Your task to perform on an android device: star an email in the gmail app Image 0: 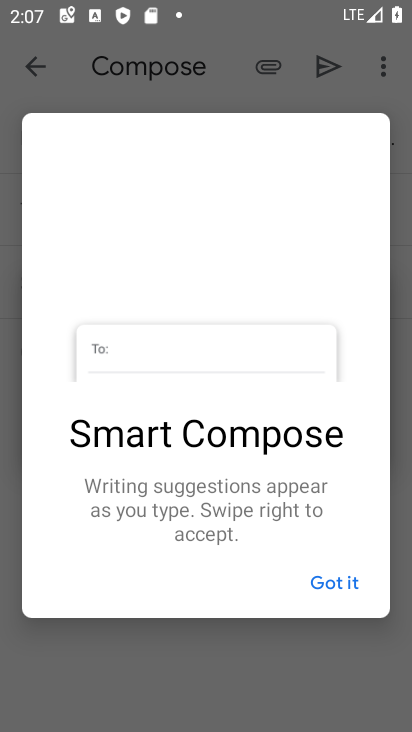
Step 0: press home button
Your task to perform on an android device: star an email in the gmail app Image 1: 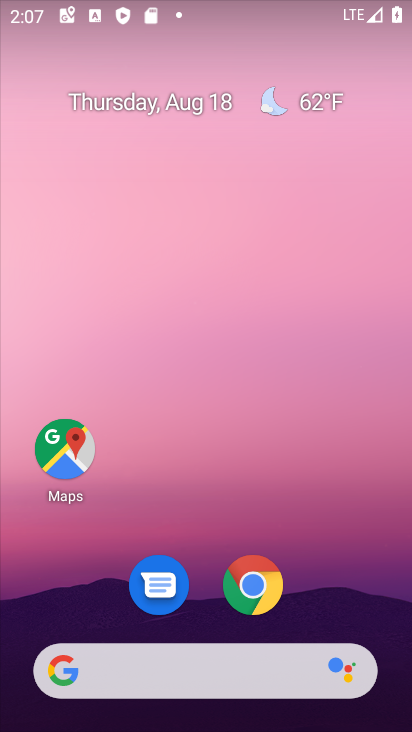
Step 1: drag from (300, 530) to (349, 12)
Your task to perform on an android device: star an email in the gmail app Image 2: 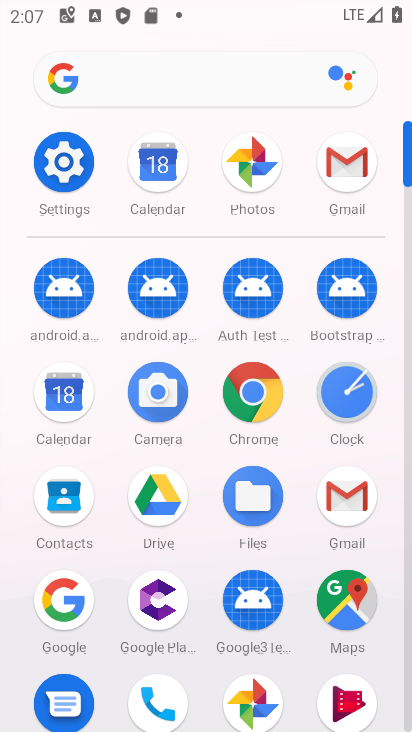
Step 2: click (347, 163)
Your task to perform on an android device: star an email in the gmail app Image 3: 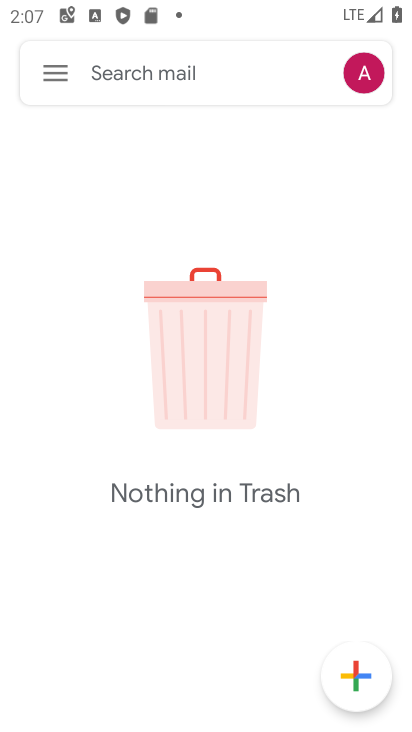
Step 3: click (57, 76)
Your task to perform on an android device: star an email in the gmail app Image 4: 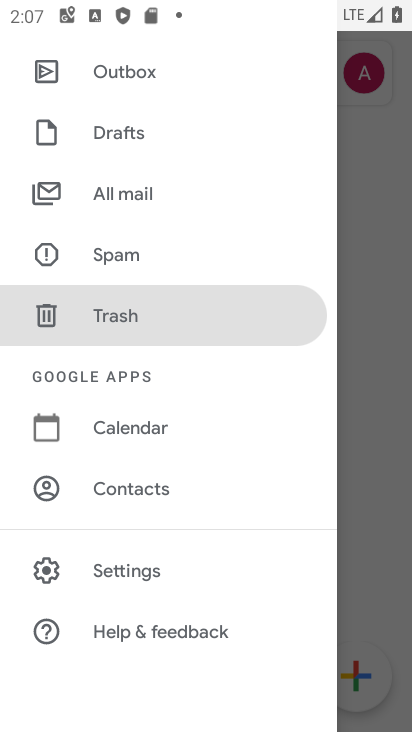
Step 4: click (117, 194)
Your task to perform on an android device: star an email in the gmail app Image 5: 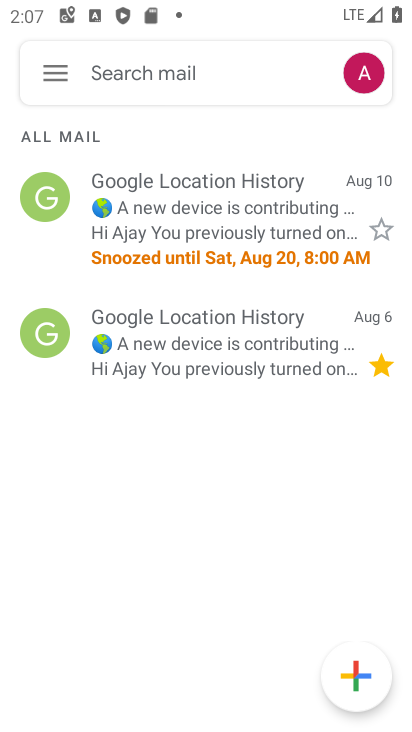
Step 5: click (381, 229)
Your task to perform on an android device: star an email in the gmail app Image 6: 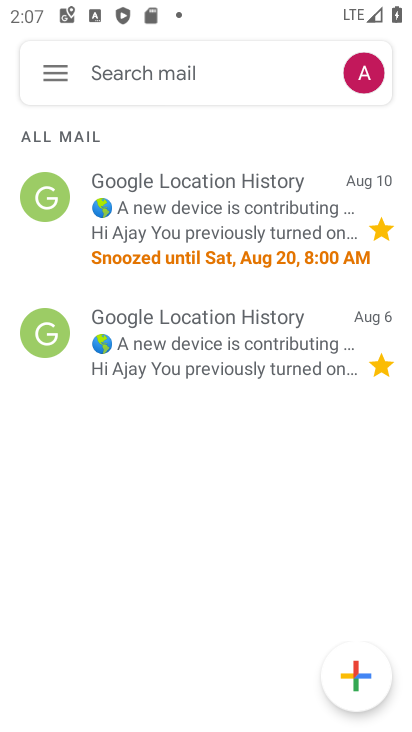
Step 6: task complete